Your task to perform on an android device: Go to Reddit.com Image 0: 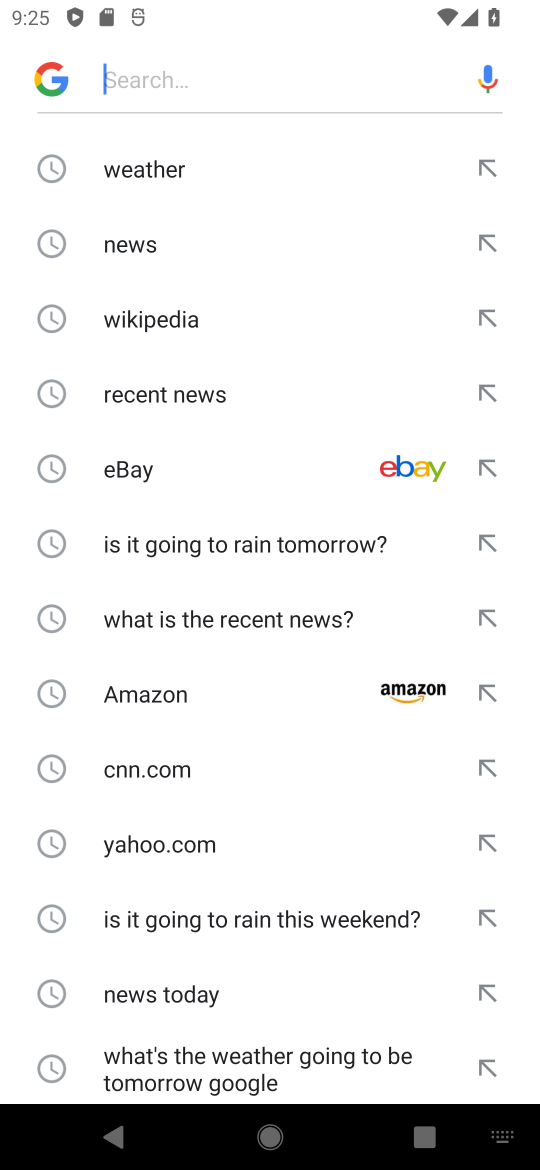
Step 0: press home button
Your task to perform on an android device: Go to Reddit.com Image 1: 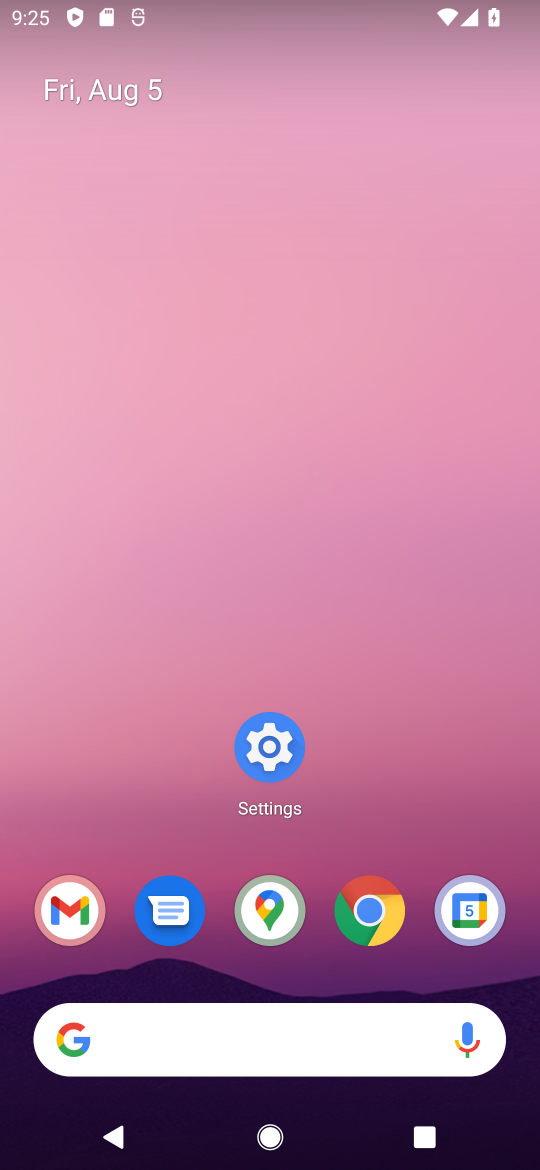
Step 1: click (356, 922)
Your task to perform on an android device: Go to Reddit.com Image 2: 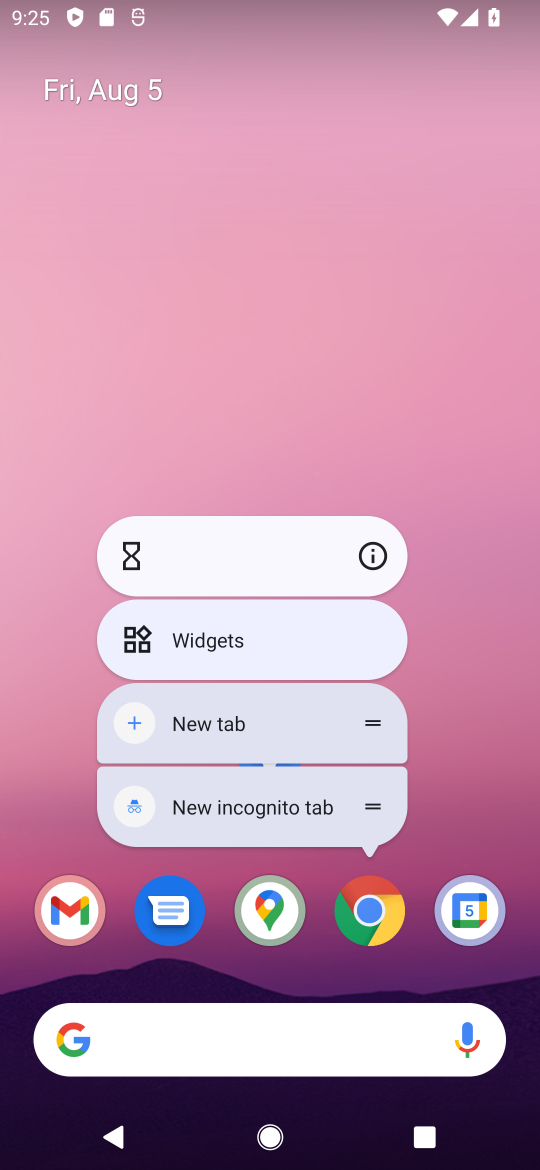
Step 2: click (365, 920)
Your task to perform on an android device: Go to Reddit.com Image 3: 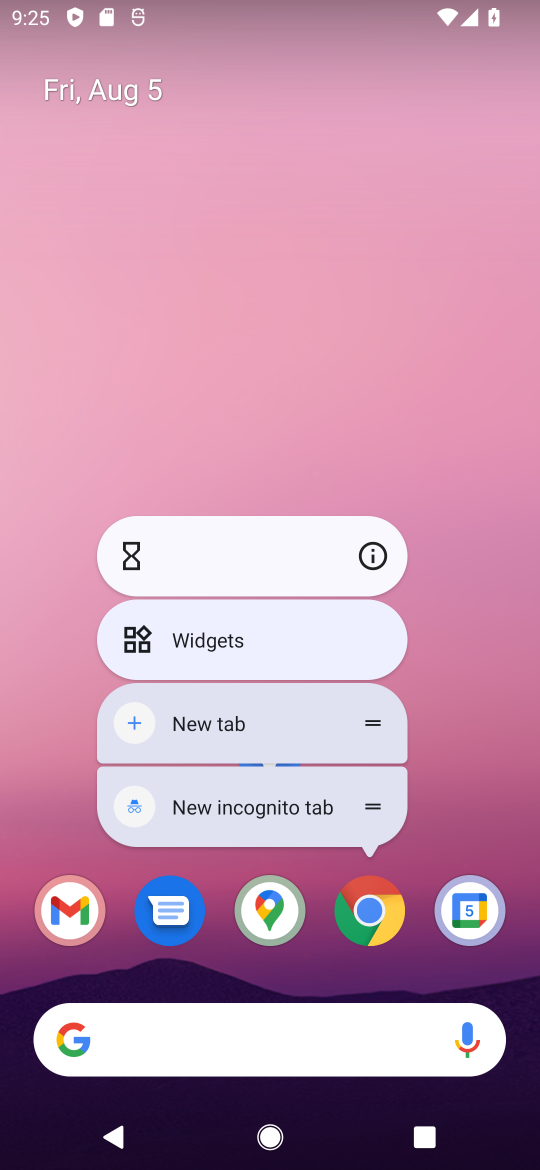
Step 3: click (365, 922)
Your task to perform on an android device: Go to Reddit.com Image 4: 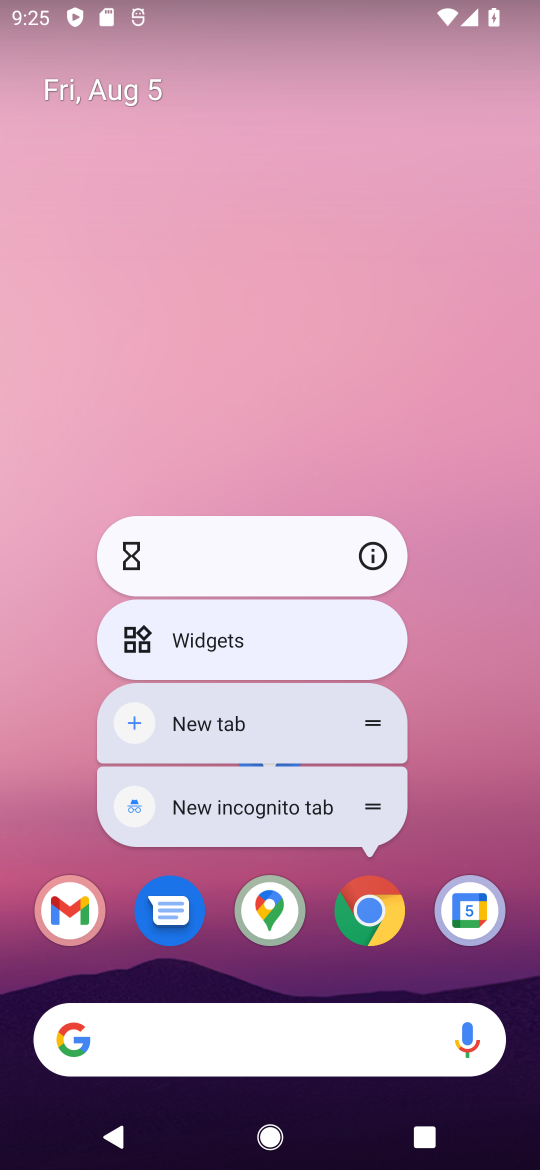
Step 4: click (359, 917)
Your task to perform on an android device: Go to Reddit.com Image 5: 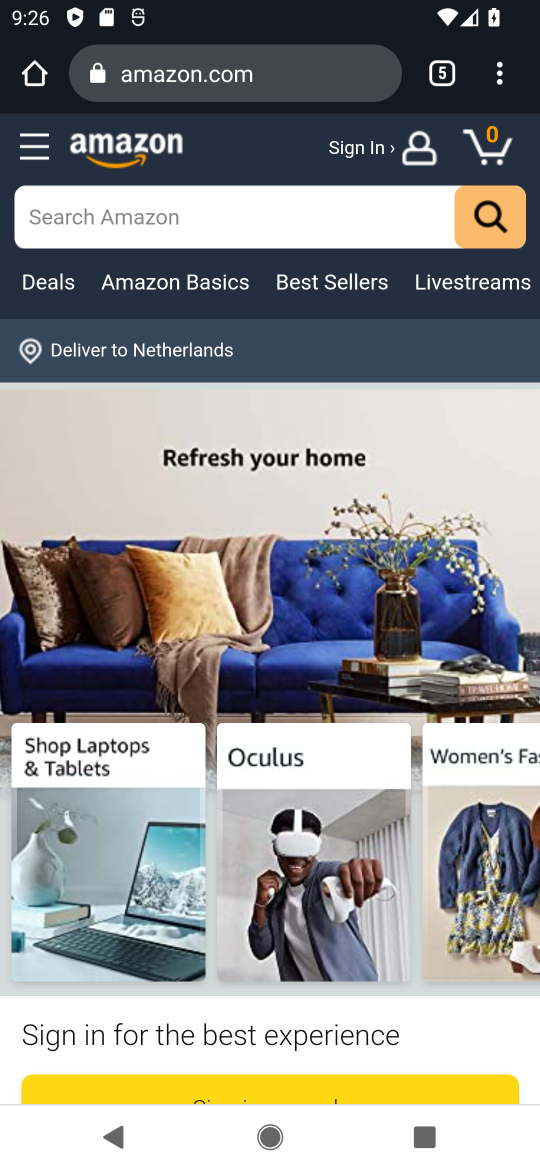
Step 5: drag from (500, 72) to (304, 239)
Your task to perform on an android device: Go to Reddit.com Image 6: 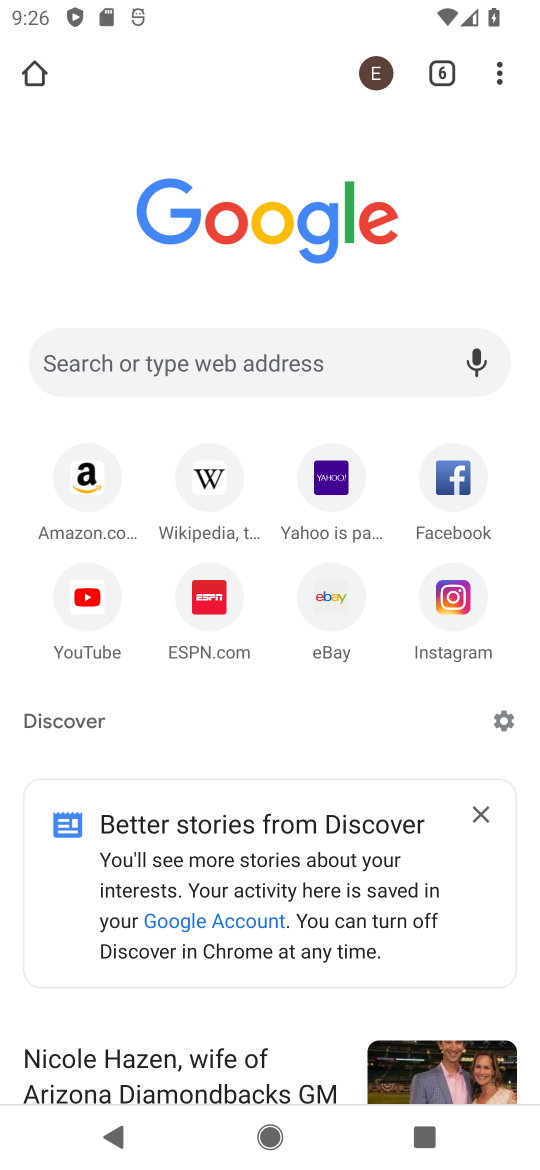
Step 6: click (131, 359)
Your task to perform on an android device: Go to Reddit.com Image 7: 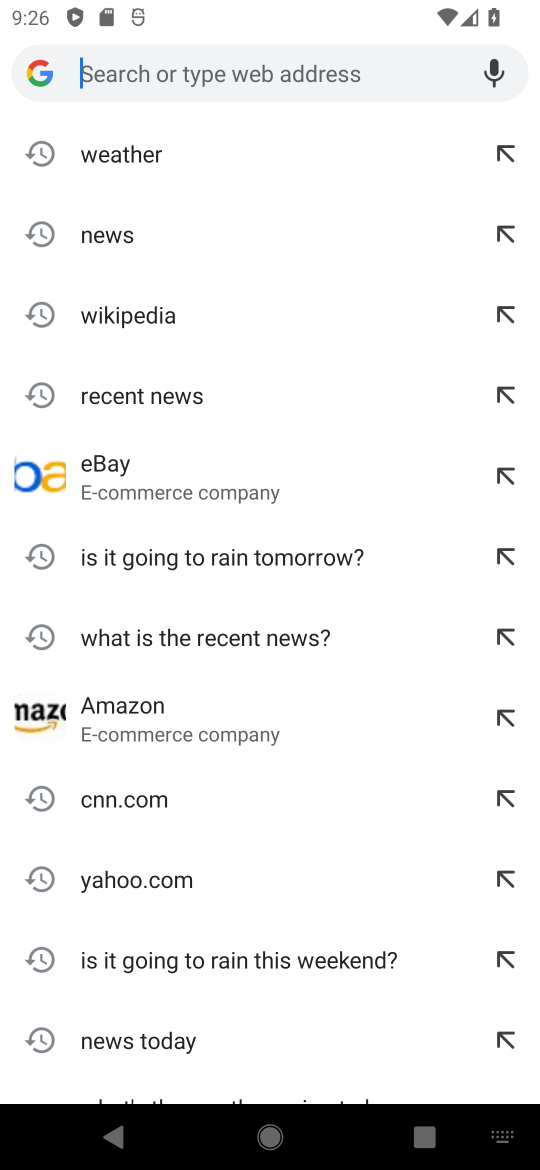
Step 7: type "Reddit.com"
Your task to perform on an android device: Go to Reddit.com Image 8: 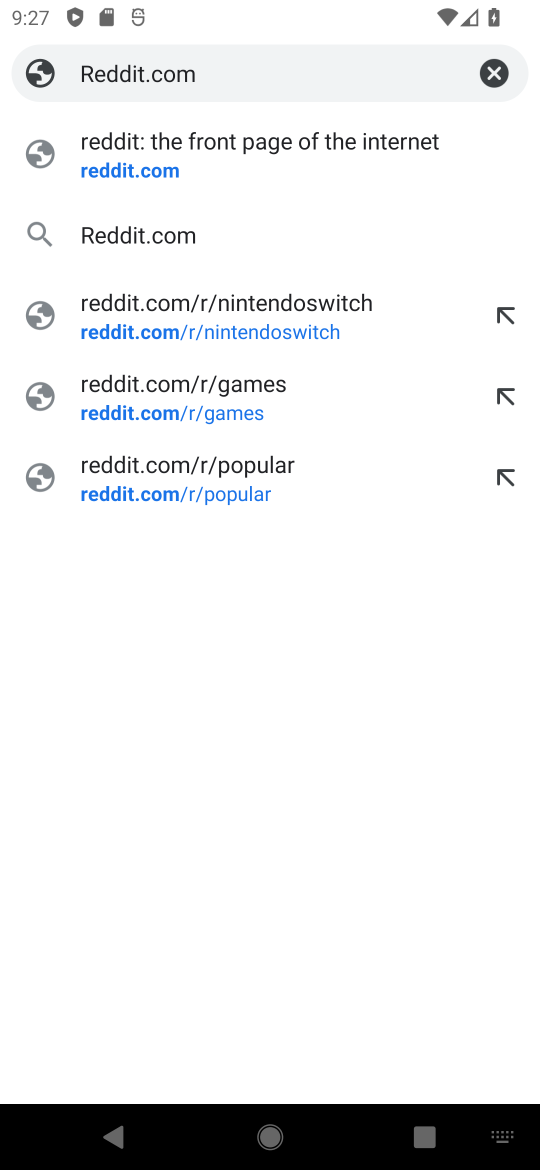
Step 8: click (131, 161)
Your task to perform on an android device: Go to Reddit.com Image 9: 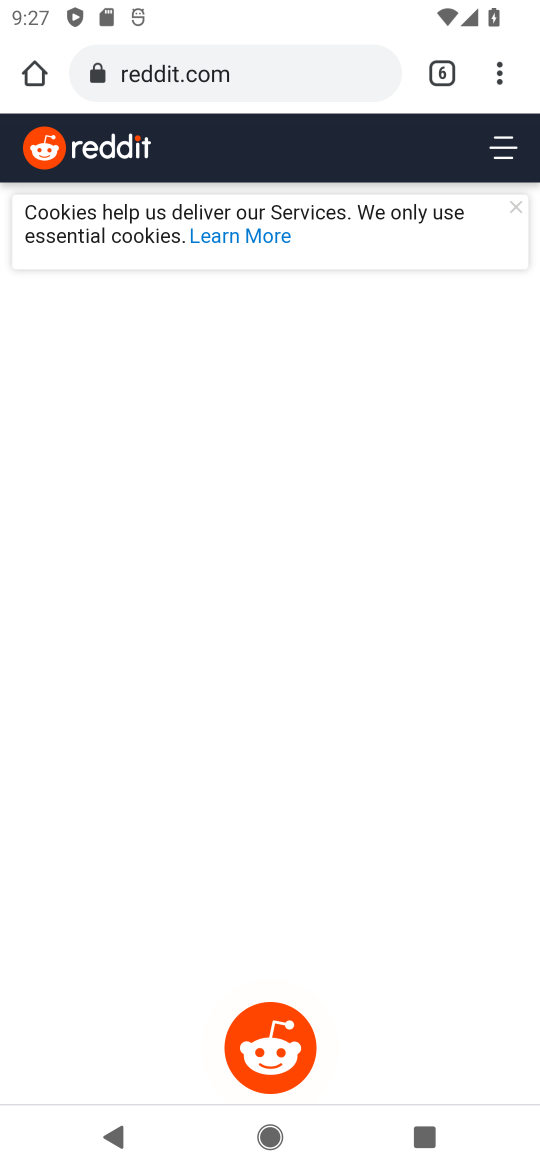
Step 9: task complete